Your task to perform on an android device: delete browsing data in the chrome app Image 0: 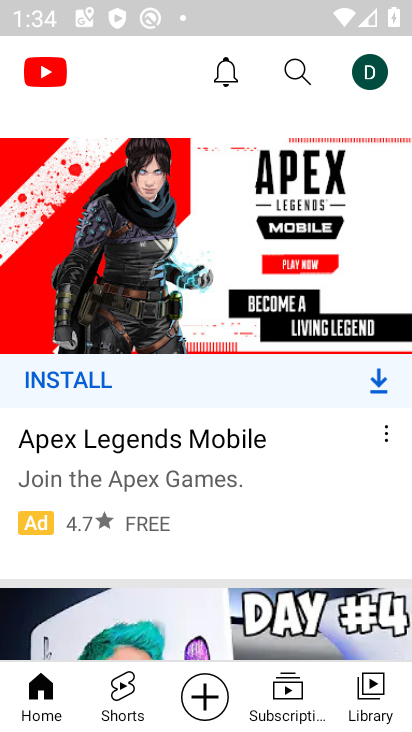
Step 0: press back button
Your task to perform on an android device: delete browsing data in the chrome app Image 1: 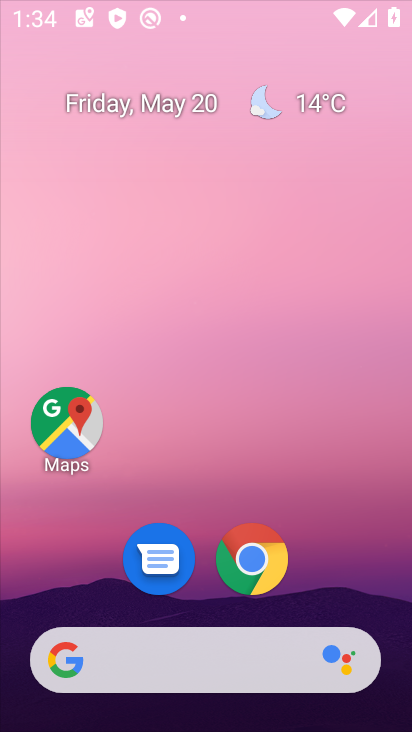
Step 1: press back button
Your task to perform on an android device: delete browsing data in the chrome app Image 2: 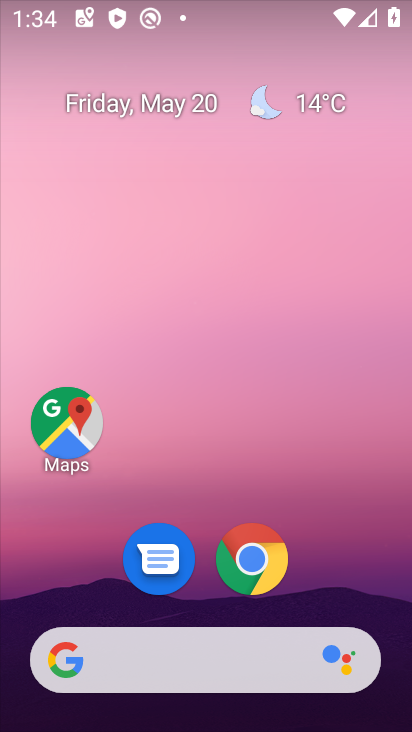
Step 2: press back button
Your task to perform on an android device: delete browsing data in the chrome app Image 3: 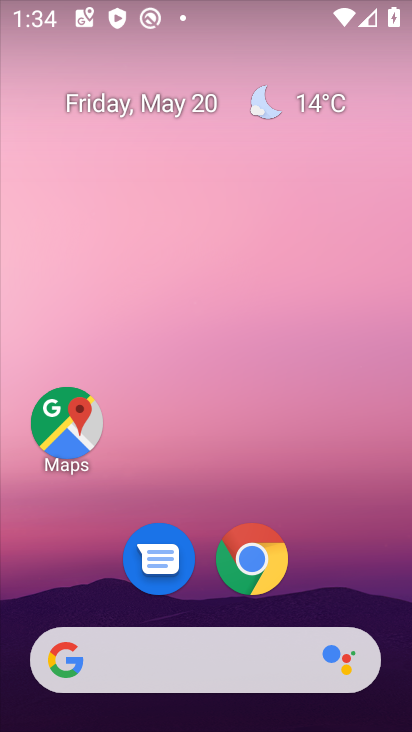
Step 3: click (271, 580)
Your task to perform on an android device: delete browsing data in the chrome app Image 4: 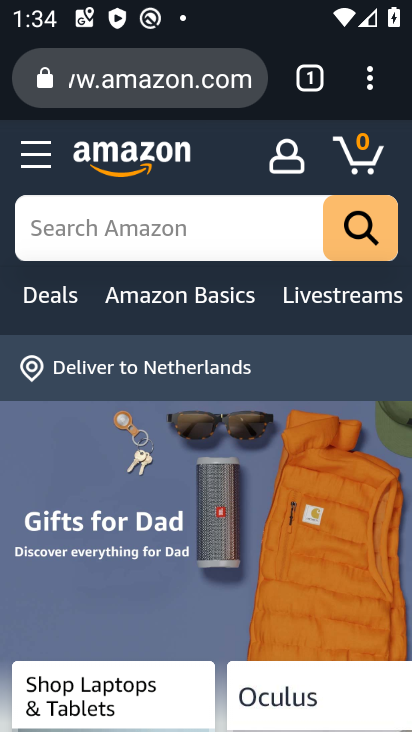
Step 4: click (379, 75)
Your task to perform on an android device: delete browsing data in the chrome app Image 5: 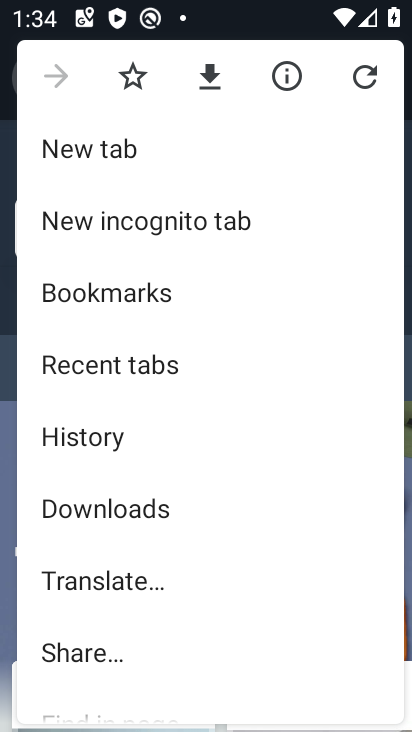
Step 5: click (203, 454)
Your task to perform on an android device: delete browsing data in the chrome app Image 6: 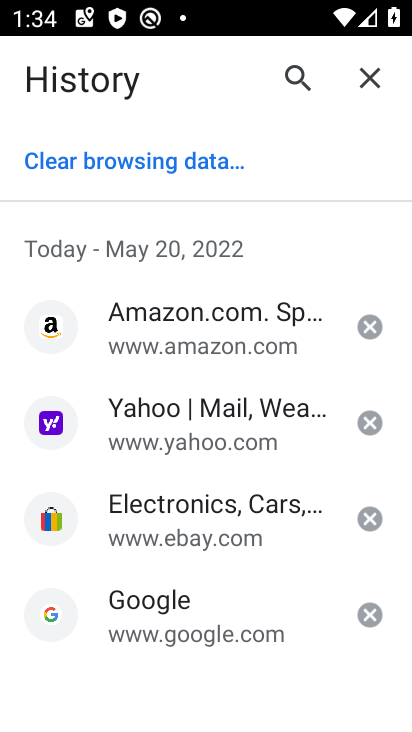
Step 6: click (167, 142)
Your task to perform on an android device: delete browsing data in the chrome app Image 7: 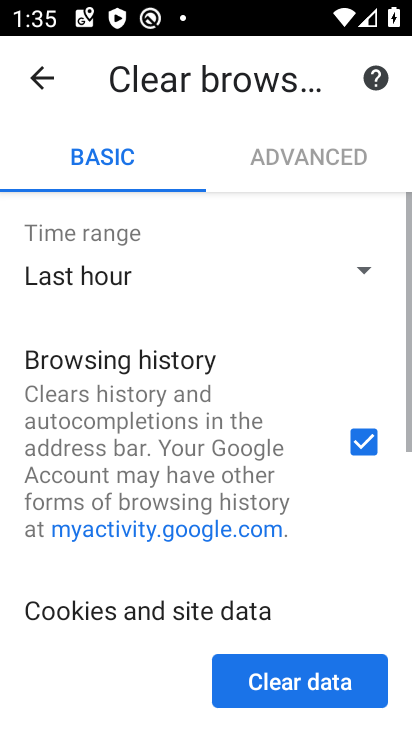
Step 7: click (314, 697)
Your task to perform on an android device: delete browsing data in the chrome app Image 8: 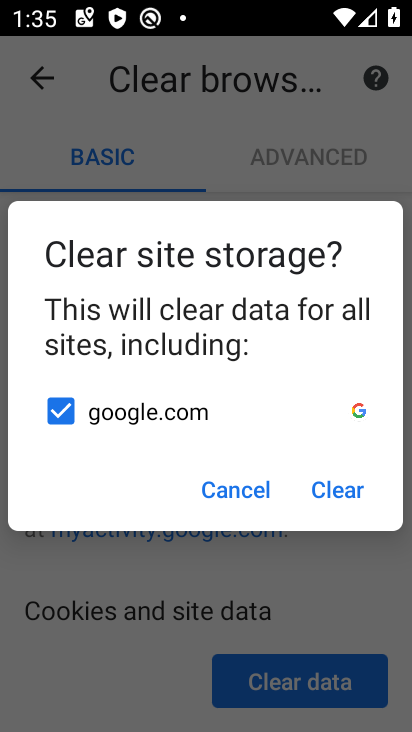
Step 8: click (307, 503)
Your task to perform on an android device: delete browsing data in the chrome app Image 9: 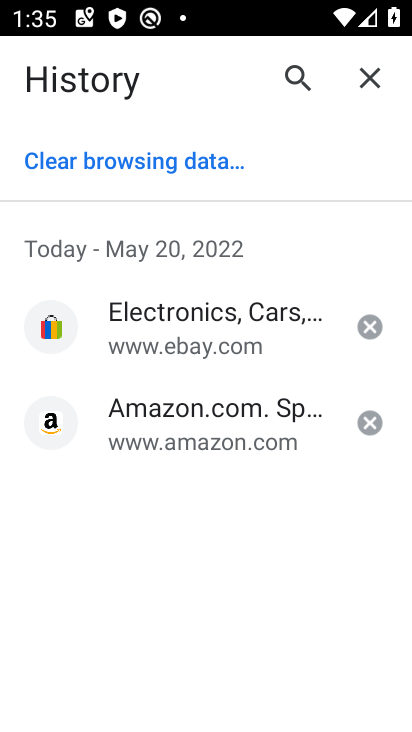
Step 9: task complete